Your task to perform on an android device: install app "LinkedIn" Image 0: 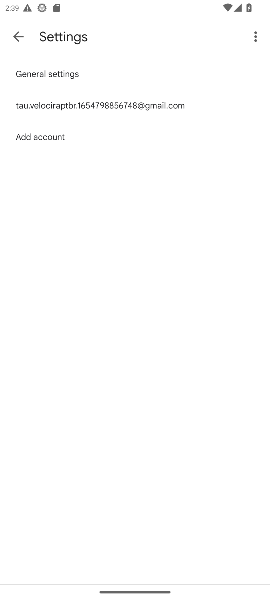
Step 0: press home button
Your task to perform on an android device: install app "LinkedIn" Image 1: 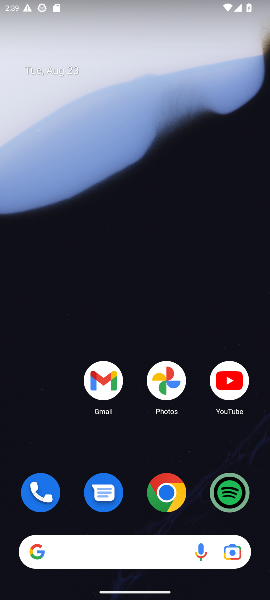
Step 1: drag from (192, 440) to (164, 29)
Your task to perform on an android device: install app "LinkedIn" Image 2: 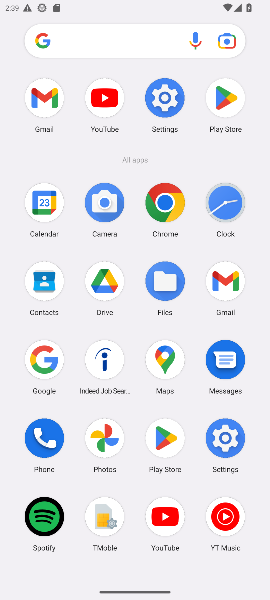
Step 2: click (224, 93)
Your task to perform on an android device: install app "LinkedIn" Image 3: 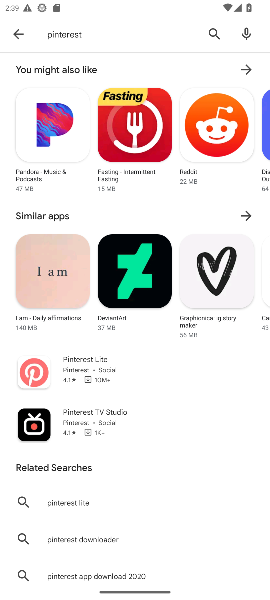
Step 3: click (216, 44)
Your task to perform on an android device: install app "LinkedIn" Image 4: 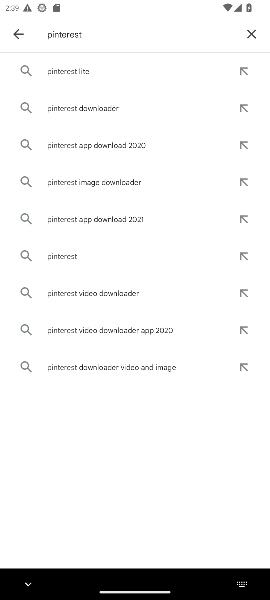
Step 4: click (249, 34)
Your task to perform on an android device: install app "LinkedIn" Image 5: 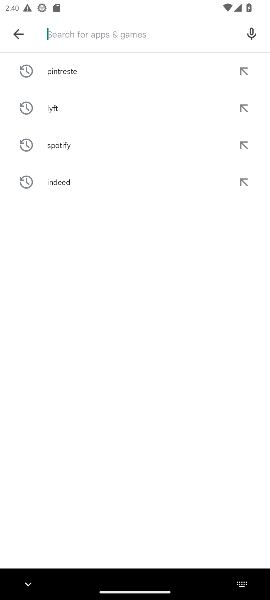
Step 5: type "linkedn"
Your task to perform on an android device: install app "LinkedIn" Image 6: 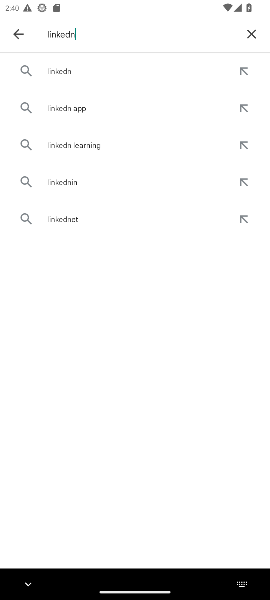
Step 6: click (76, 70)
Your task to perform on an android device: install app "LinkedIn" Image 7: 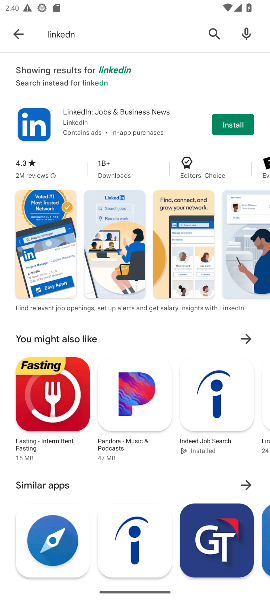
Step 7: click (232, 118)
Your task to perform on an android device: install app "LinkedIn" Image 8: 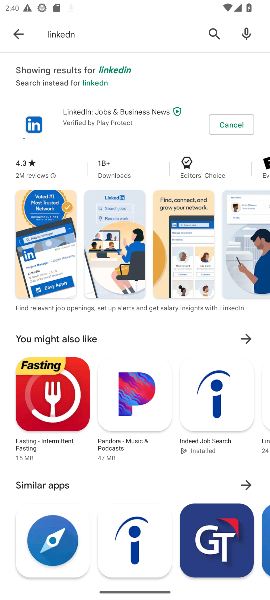
Step 8: task complete